Your task to perform on an android device: refresh tabs in the chrome app Image 0: 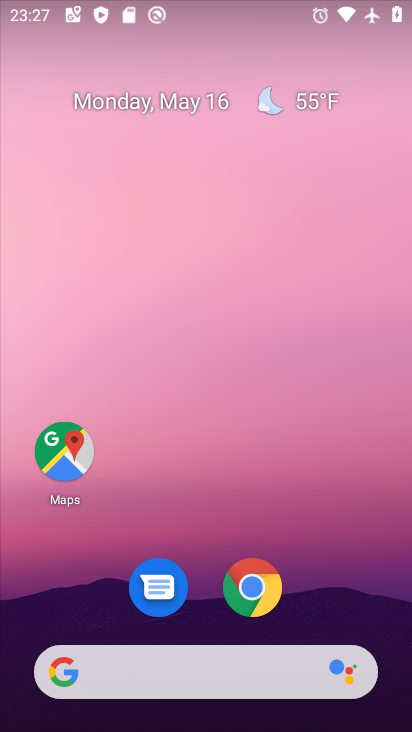
Step 0: drag from (329, 573) to (244, 0)
Your task to perform on an android device: refresh tabs in the chrome app Image 1: 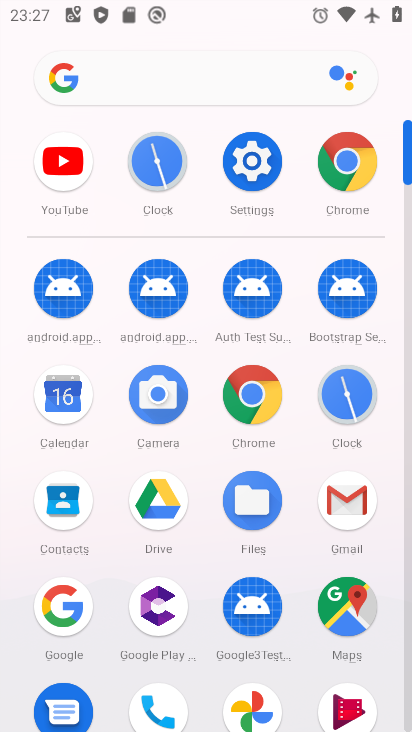
Step 1: drag from (33, 614) to (12, 295)
Your task to perform on an android device: refresh tabs in the chrome app Image 2: 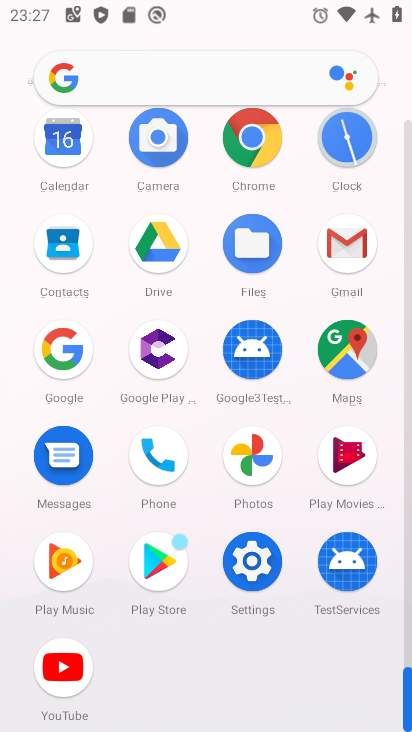
Step 2: click (251, 131)
Your task to perform on an android device: refresh tabs in the chrome app Image 3: 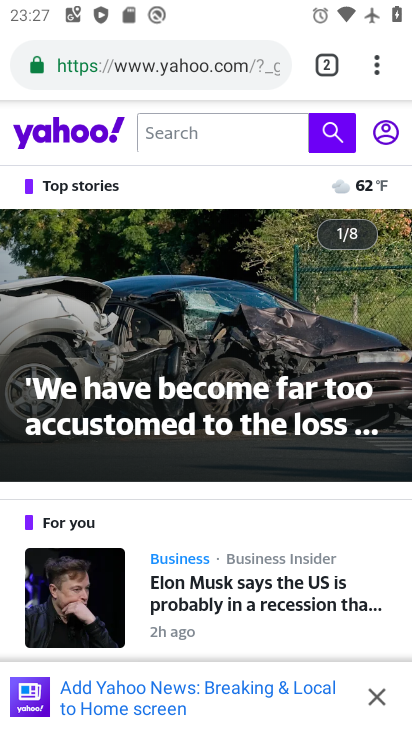
Step 3: click (377, 64)
Your task to perform on an android device: refresh tabs in the chrome app Image 4: 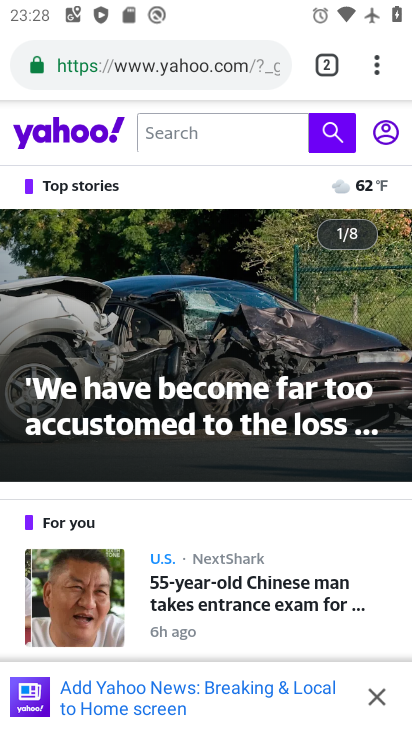
Step 4: task complete